Your task to perform on an android device: turn off data saver in the chrome app Image 0: 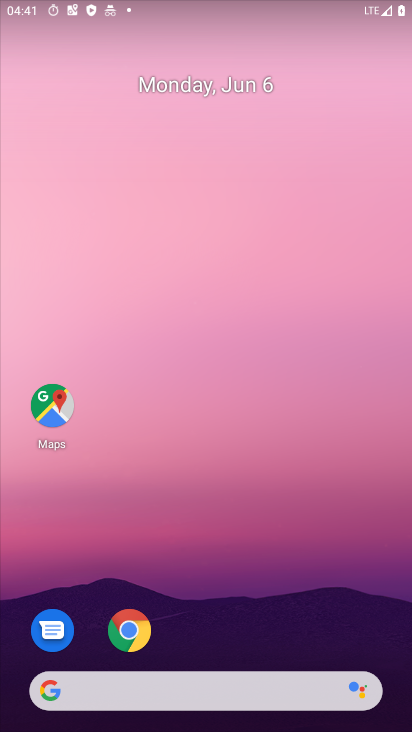
Step 0: drag from (300, 636) to (277, 81)
Your task to perform on an android device: turn off data saver in the chrome app Image 1: 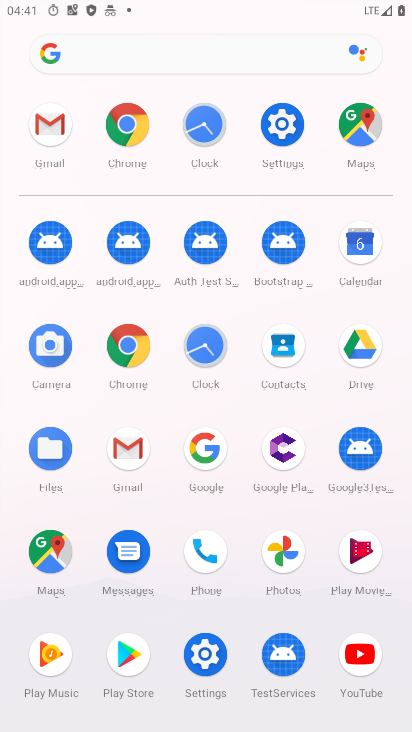
Step 1: click (124, 353)
Your task to perform on an android device: turn off data saver in the chrome app Image 2: 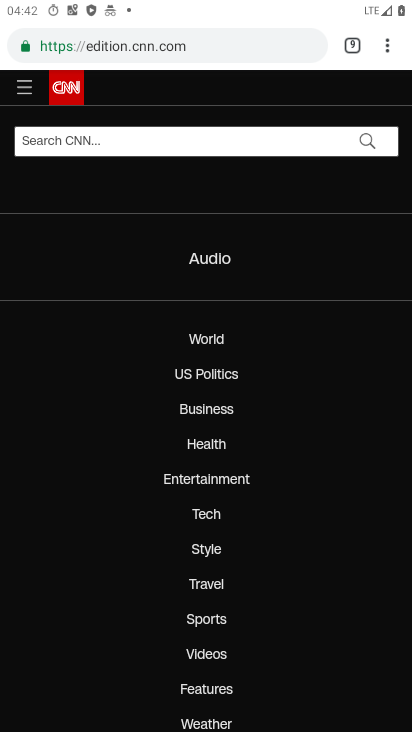
Step 2: drag from (381, 43) to (224, 550)
Your task to perform on an android device: turn off data saver in the chrome app Image 3: 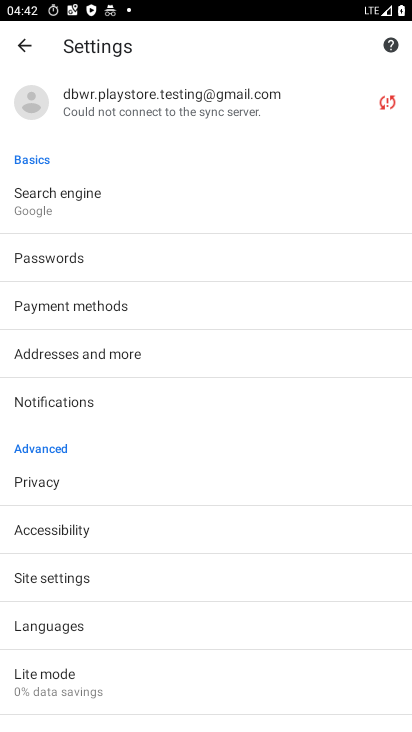
Step 3: drag from (181, 641) to (201, 356)
Your task to perform on an android device: turn off data saver in the chrome app Image 4: 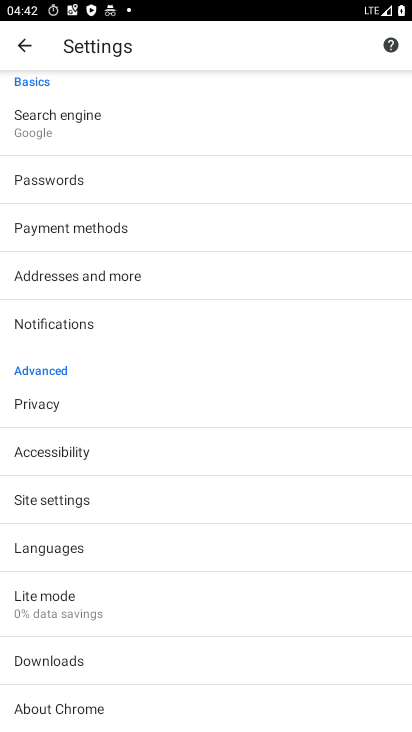
Step 4: click (54, 596)
Your task to perform on an android device: turn off data saver in the chrome app Image 5: 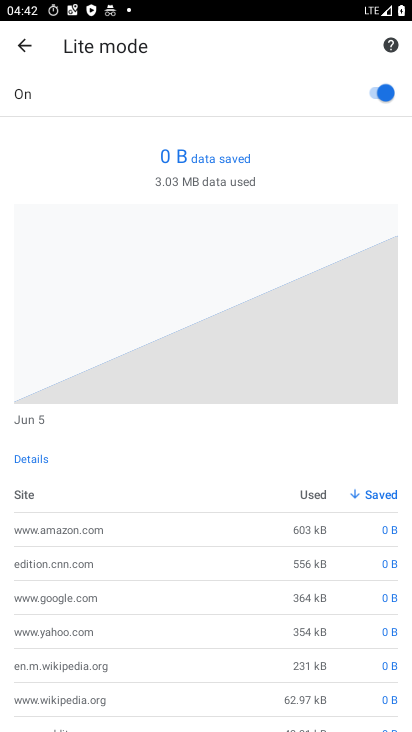
Step 5: task complete